Your task to perform on an android device: Search for Italian restaurants on Maps Image 0: 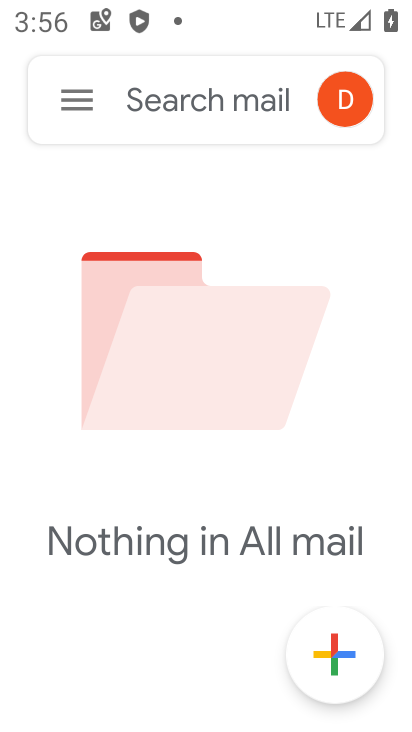
Step 0: press home button
Your task to perform on an android device: Search for Italian restaurants on Maps Image 1: 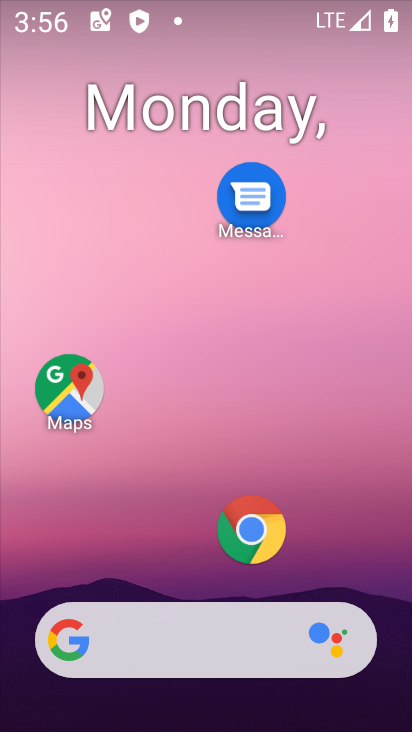
Step 1: drag from (165, 597) to (224, 34)
Your task to perform on an android device: Search for Italian restaurants on Maps Image 2: 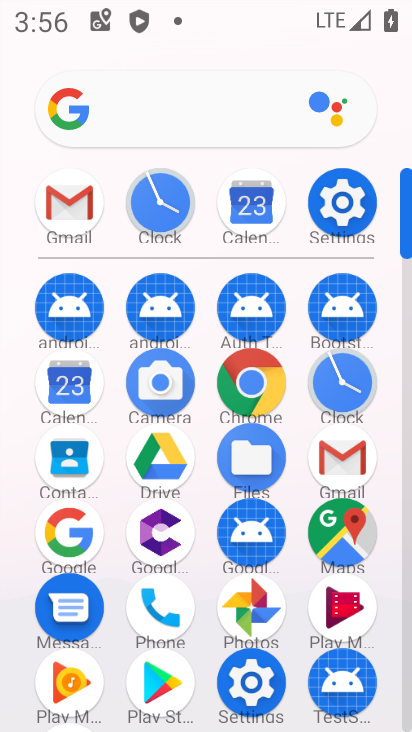
Step 2: click (347, 537)
Your task to perform on an android device: Search for Italian restaurants on Maps Image 3: 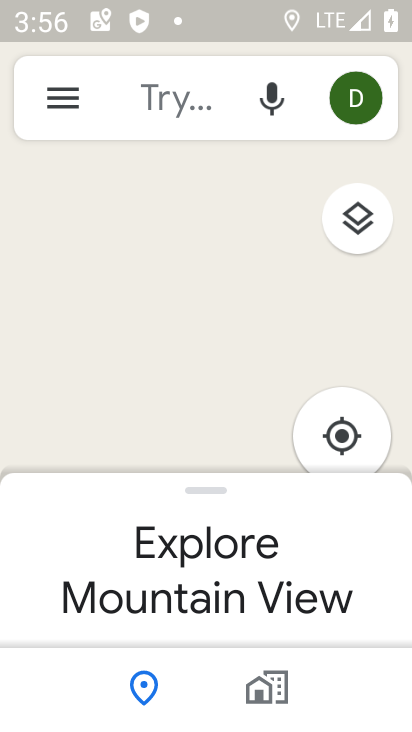
Step 3: click (147, 85)
Your task to perform on an android device: Search for Italian restaurants on Maps Image 4: 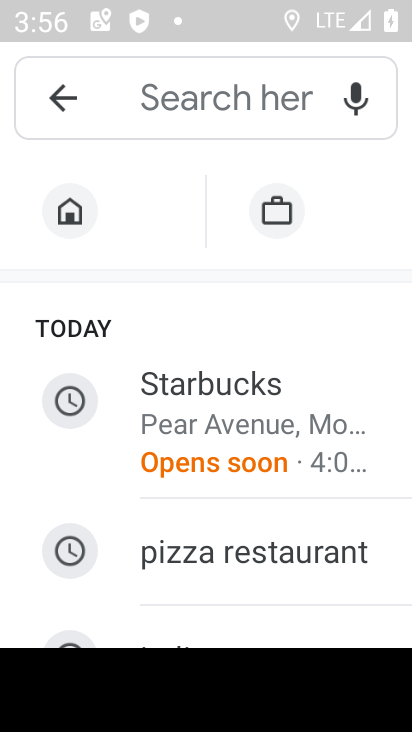
Step 4: click (154, 92)
Your task to perform on an android device: Search for Italian restaurants on Maps Image 5: 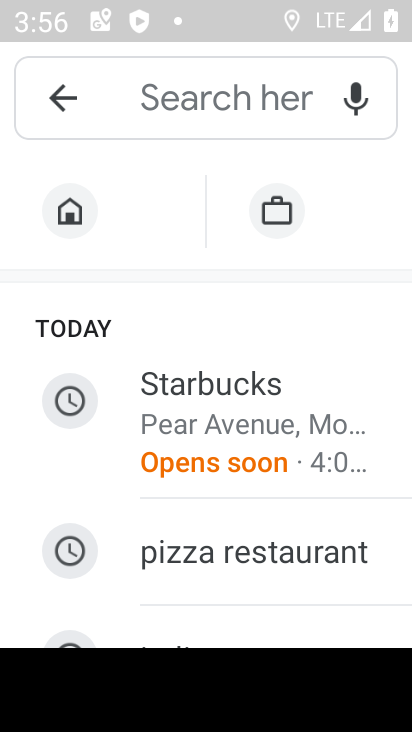
Step 5: drag from (258, 543) to (14, 556)
Your task to perform on an android device: Search for Italian restaurants on Maps Image 6: 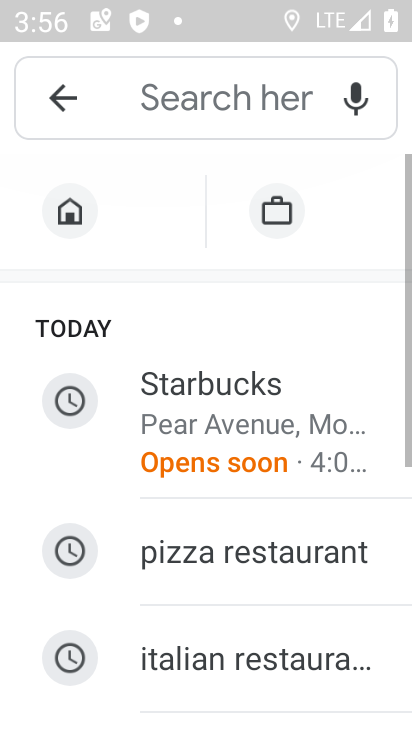
Step 6: drag from (147, 581) to (181, 340)
Your task to perform on an android device: Search for Italian restaurants on Maps Image 7: 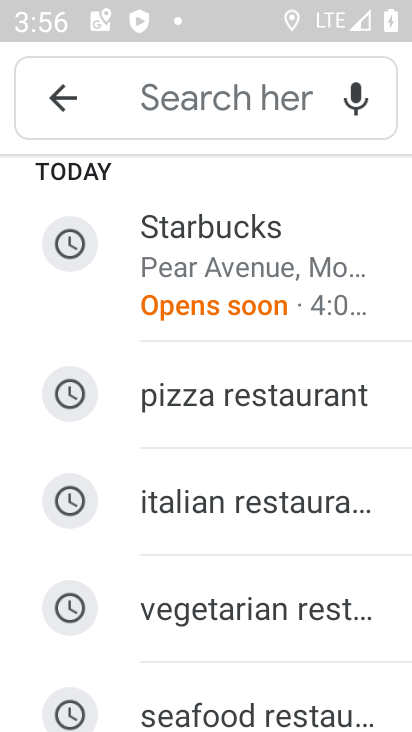
Step 7: click (196, 491)
Your task to perform on an android device: Search for Italian restaurants on Maps Image 8: 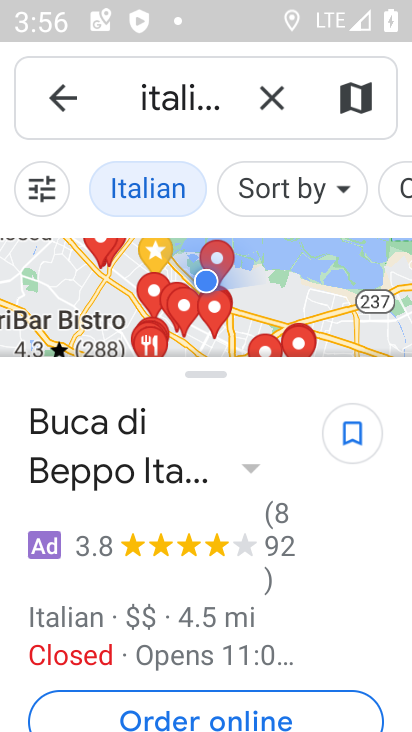
Step 8: task complete